Your task to perform on an android device: check the backup settings in the google photos Image 0: 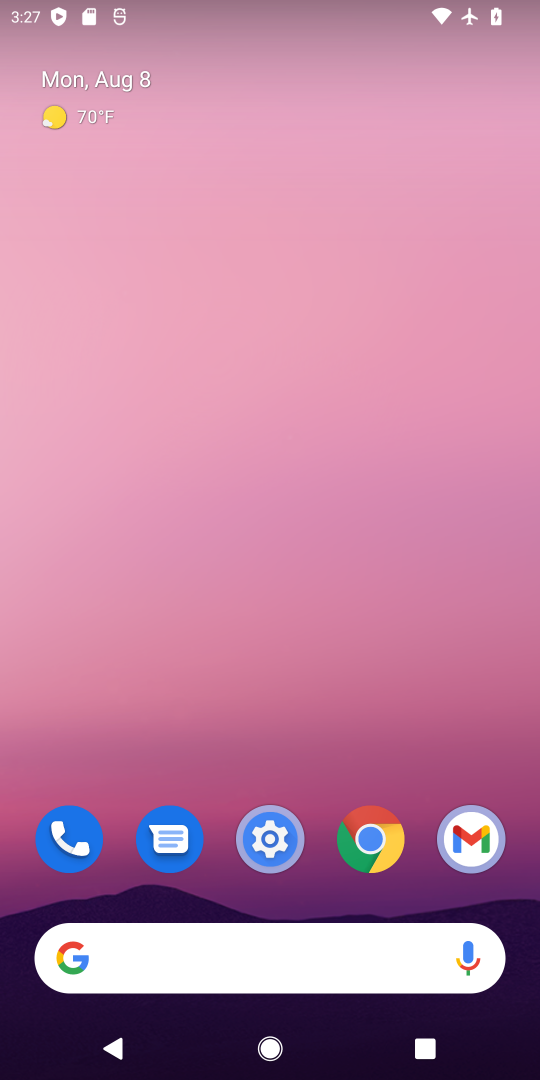
Step 0: press home button
Your task to perform on an android device: check the backup settings in the google photos Image 1: 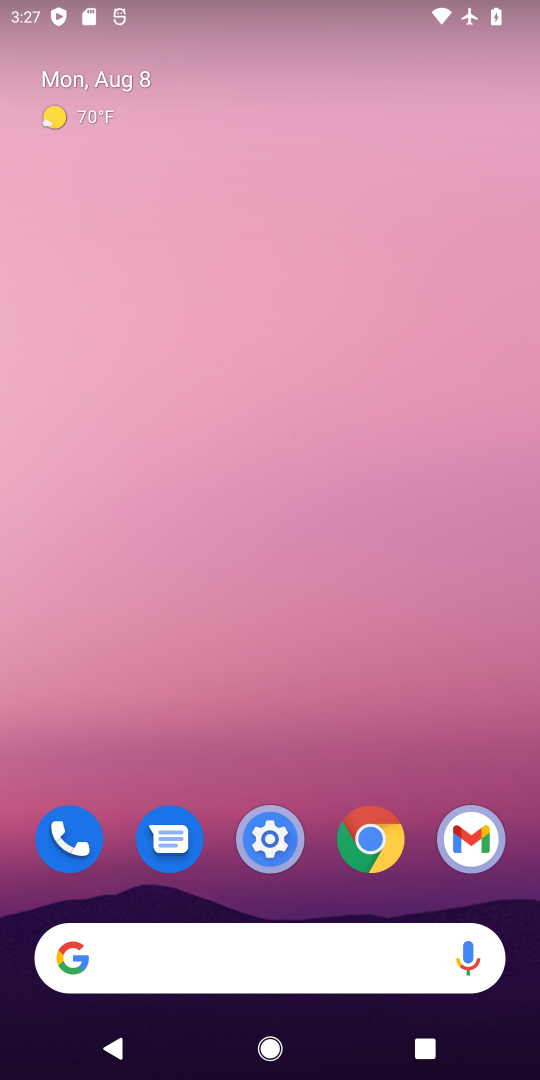
Step 1: drag from (421, 698) to (460, 233)
Your task to perform on an android device: check the backup settings in the google photos Image 2: 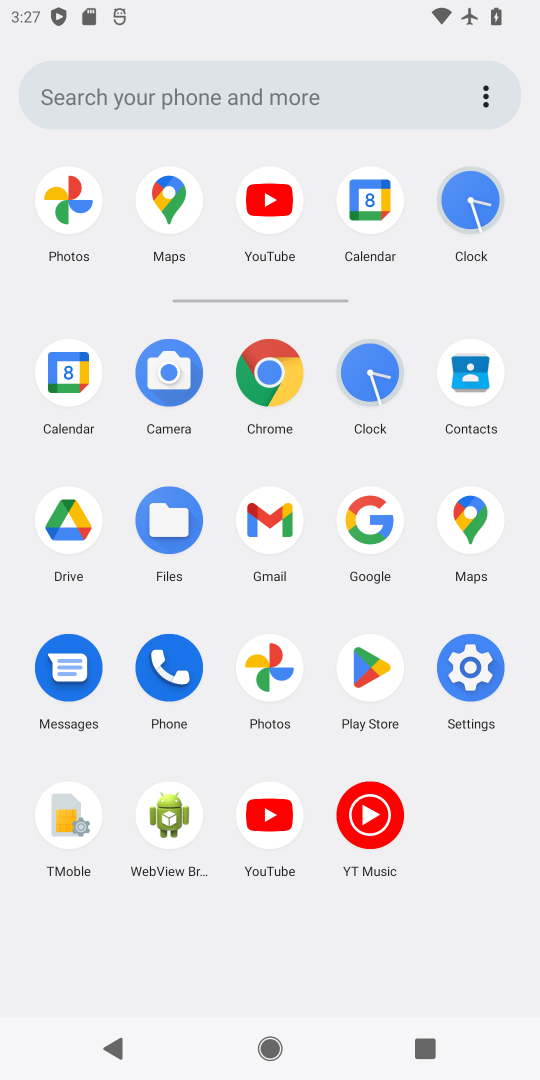
Step 2: click (263, 674)
Your task to perform on an android device: check the backup settings in the google photos Image 3: 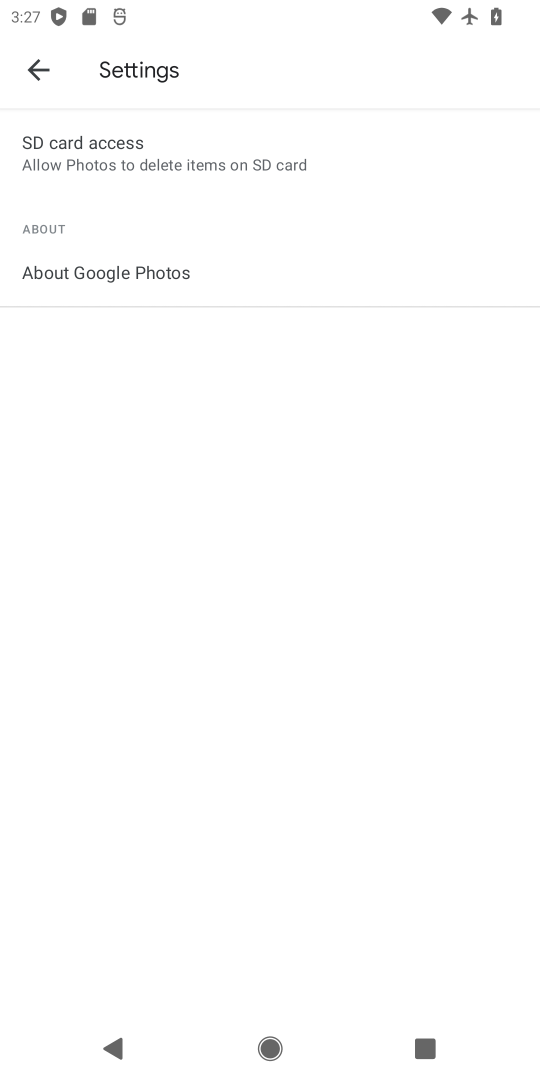
Step 3: press back button
Your task to perform on an android device: check the backup settings in the google photos Image 4: 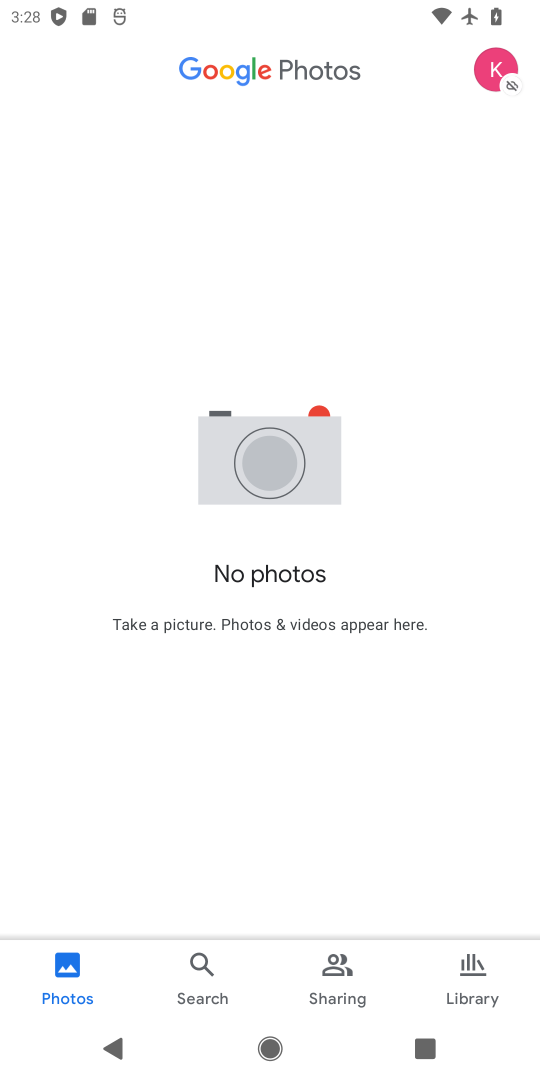
Step 4: click (492, 68)
Your task to perform on an android device: check the backup settings in the google photos Image 5: 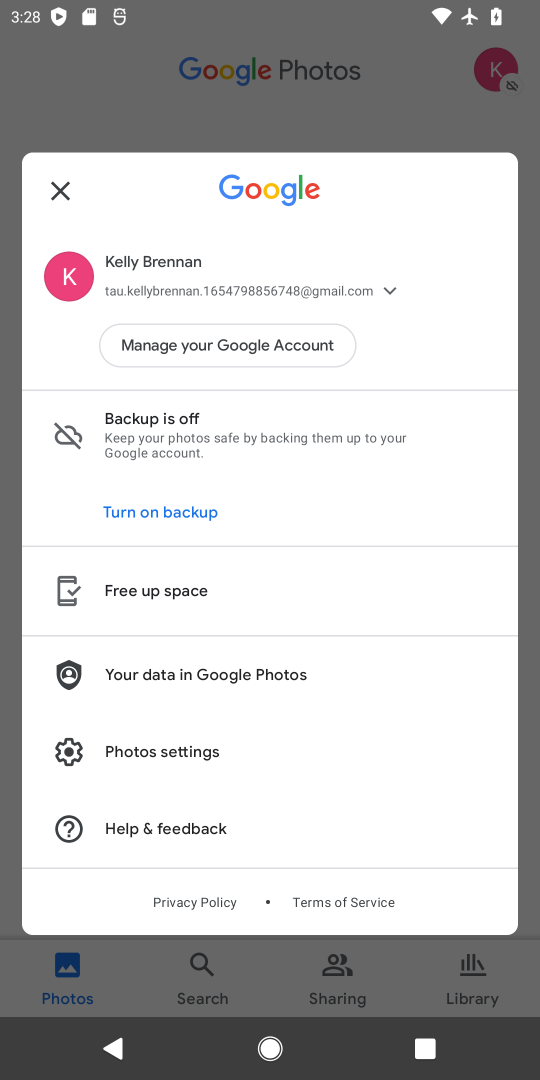
Step 5: click (203, 743)
Your task to perform on an android device: check the backup settings in the google photos Image 6: 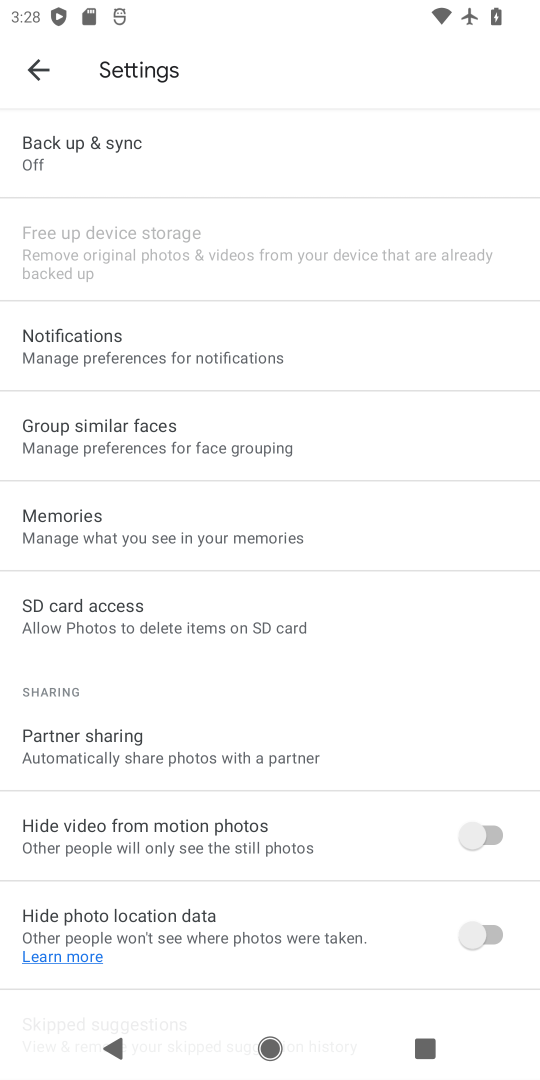
Step 6: click (150, 145)
Your task to perform on an android device: check the backup settings in the google photos Image 7: 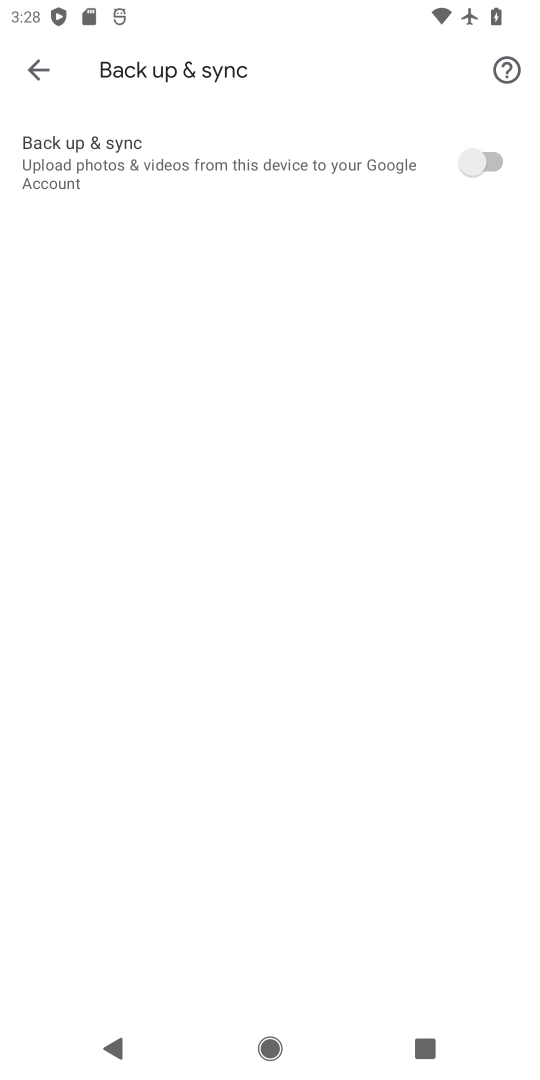
Step 7: task complete